Your task to perform on an android device: clear history in the chrome app Image 0: 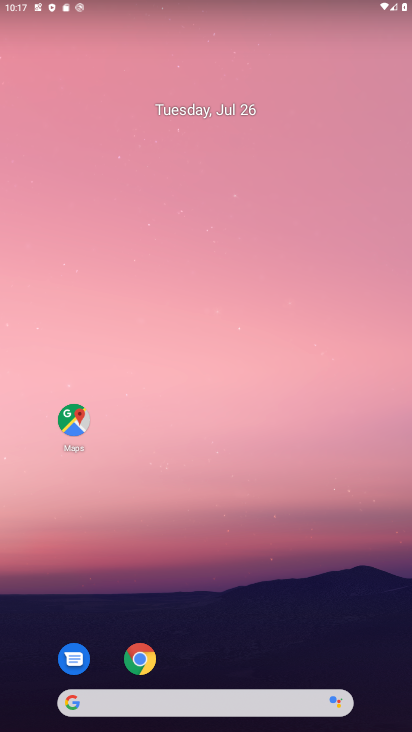
Step 0: press home button
Your task to perform on an android device: clear history in the chrome app Image 1: 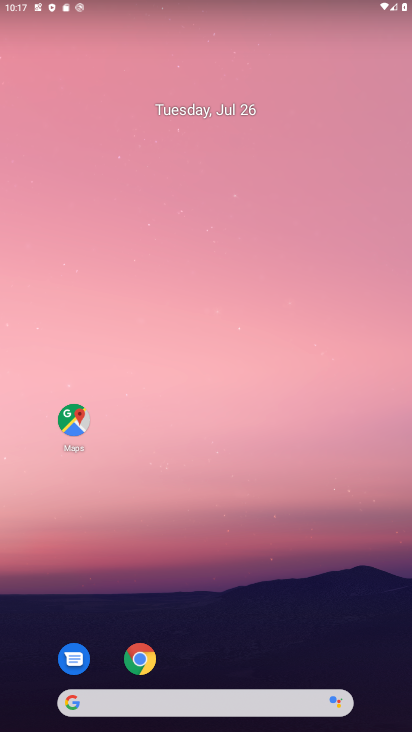
Step 1: drag from (380, 606) to (347, 149)
Your task to perform on an android device: clear history in the chrome app Image 2: 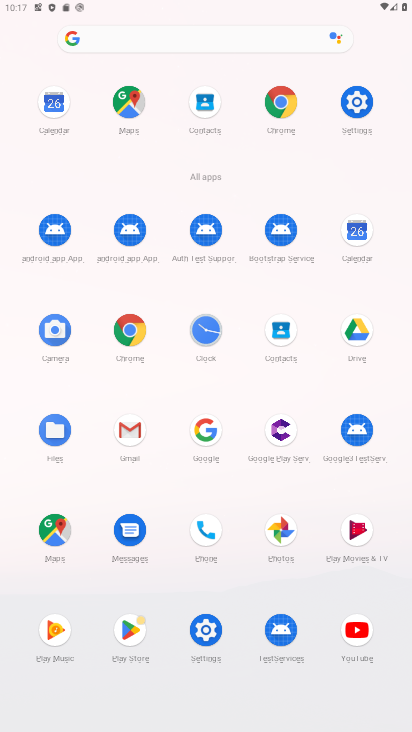
Step 2: click (112, 347)
Your task to perform on an android device: clear history in the chrome app Image 3: 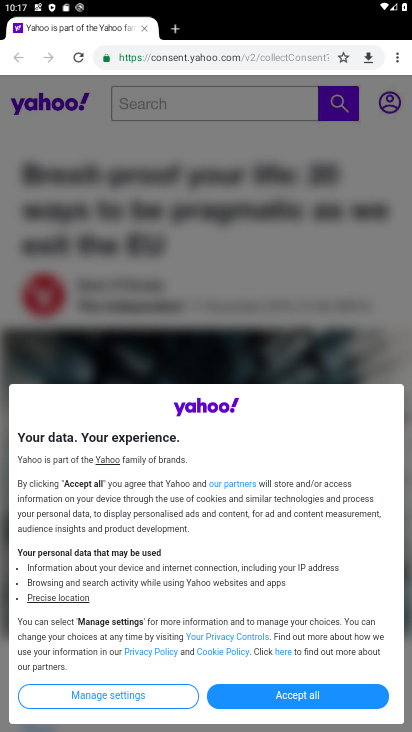
Step 3: task complete